Your task to perform on an android device: Open Chrome and go to the settings page Image 0: 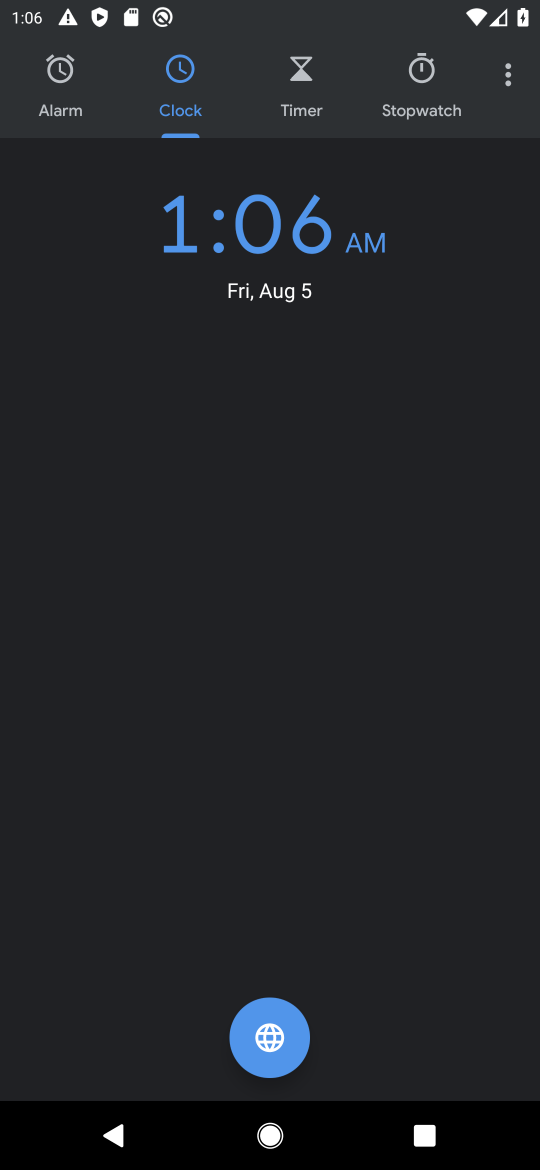
Step 0: press back button
Your task to perform on an android device: Open Chrome and go to the settings page Image 1: 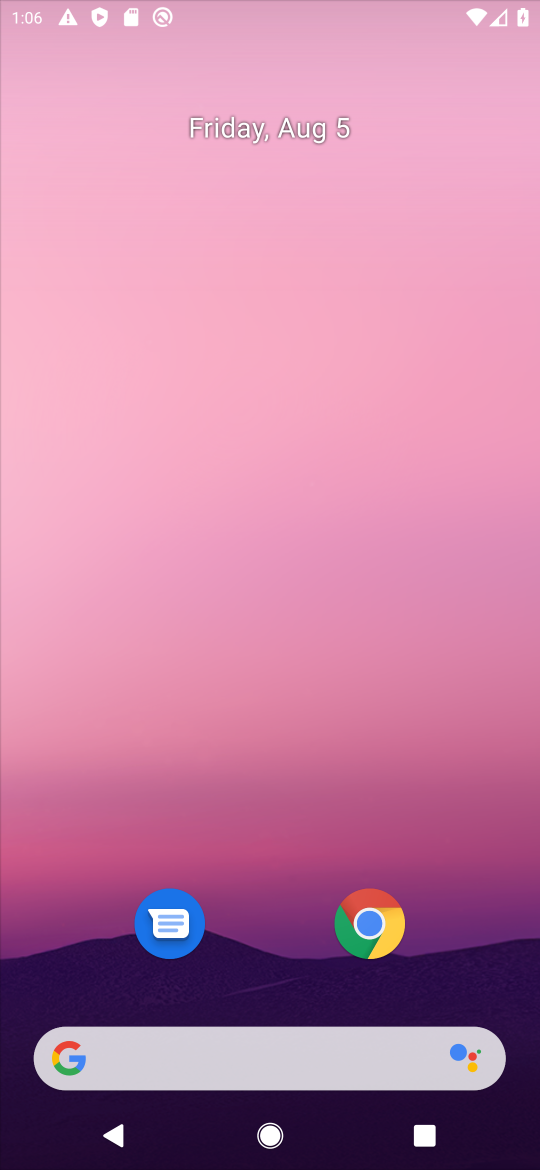
Step 1: press home button
Your task to perform on an android device: Open Chrome and go to the settings page Image 2: 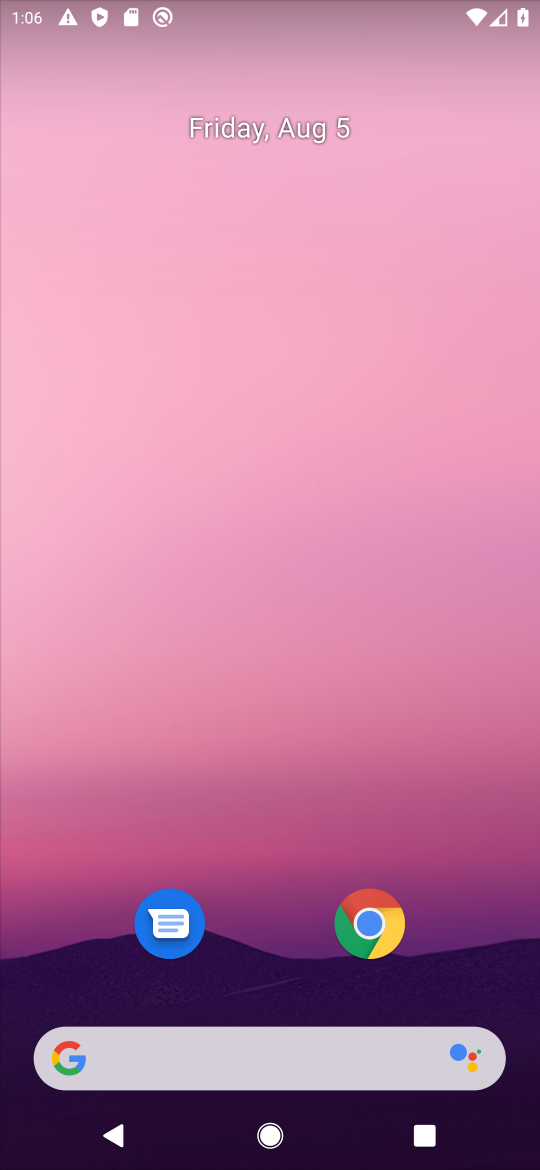
Step 2: drag from (311, 997) to (108, 13)
Your task to perform on an android device: Open Chrome and go to the settings page Image 3: 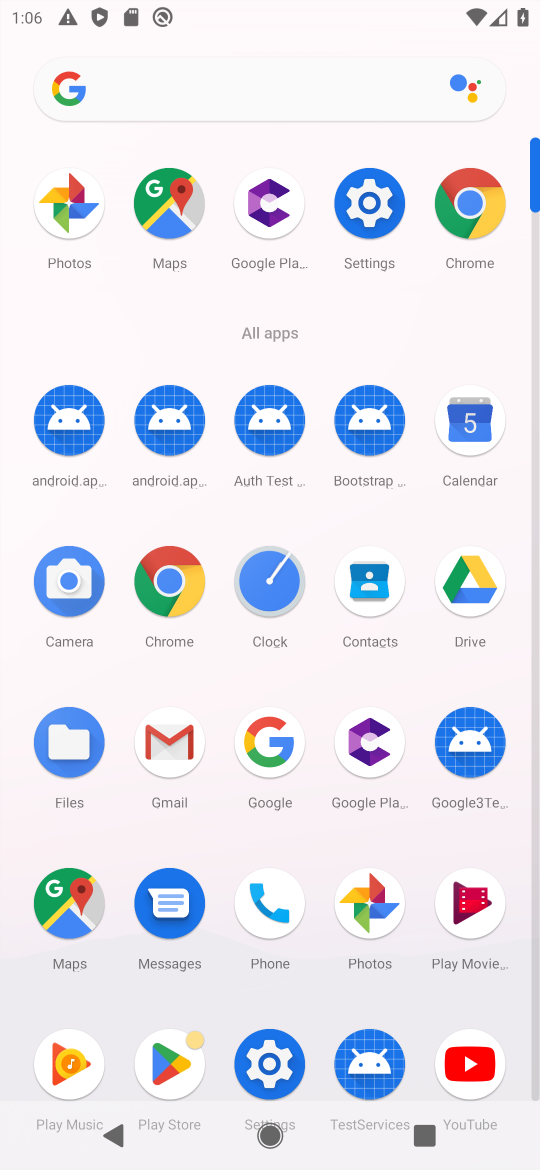
Step 3: click (187, 577)
Your task to perform on an android device: Open Chrome and go to the settings page Image 4: 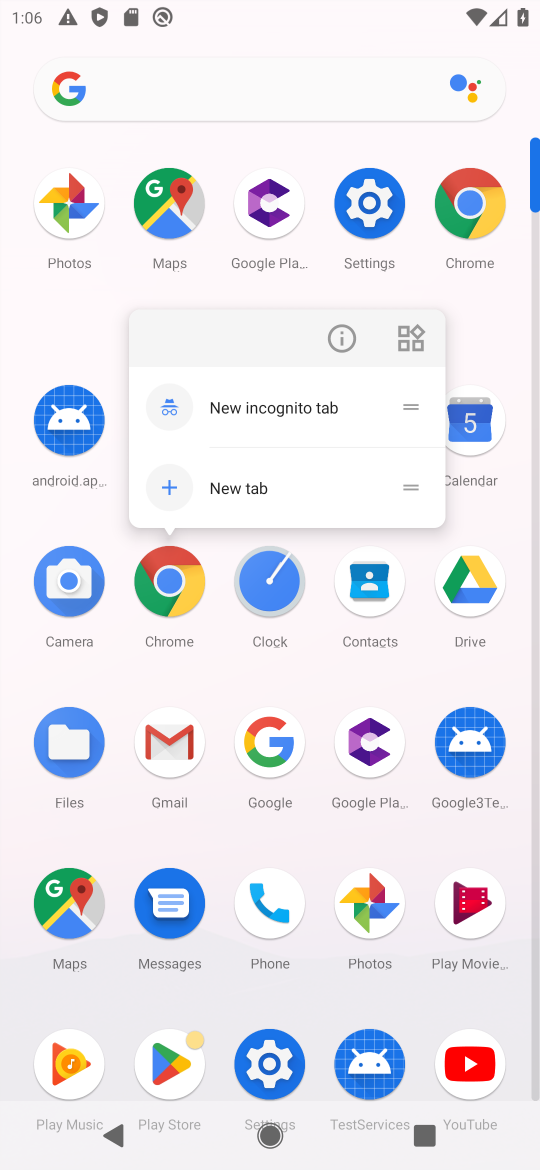
Step 4: click (181, 589)
Your task to perform on an android device: Open Chrome and go to the settings page Image 5: 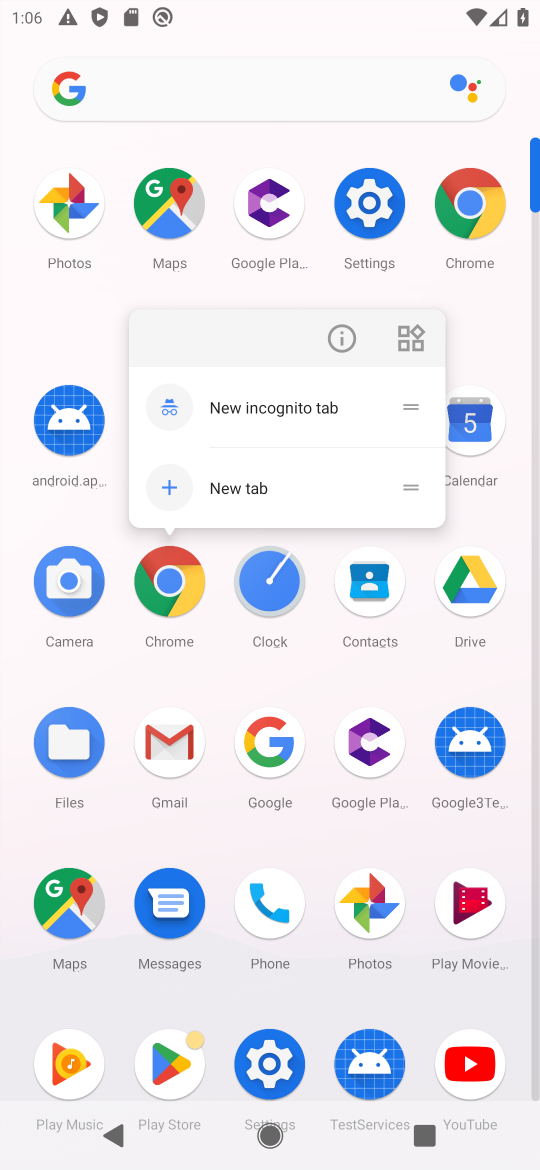
Step 5: click (180, 590)
Your task to perform on an android device: Open Chrome and go to the settings page Image 6: 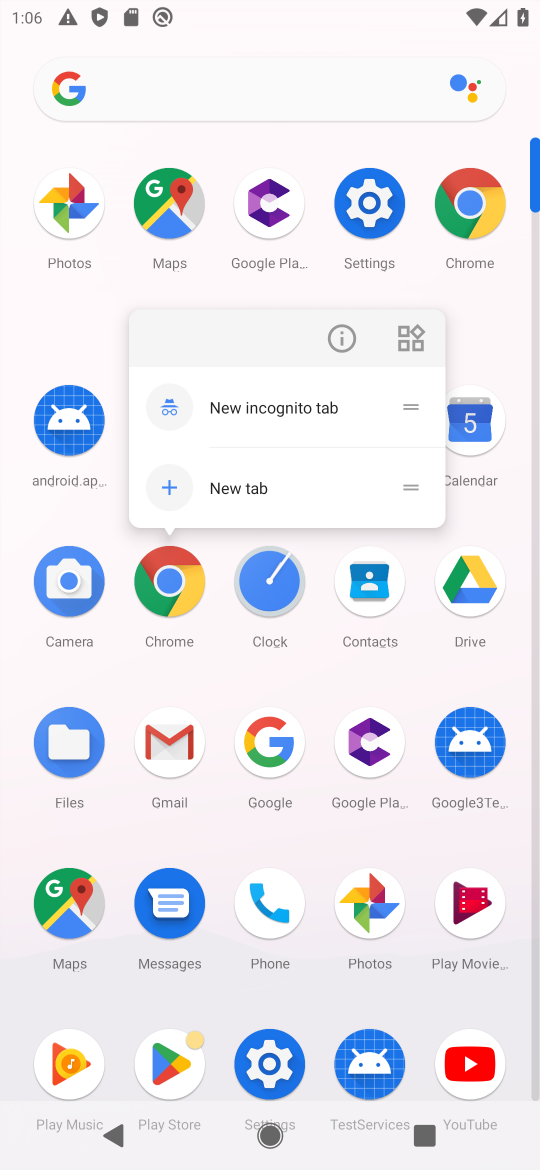
Step 6: click (191, 570)
Your task to perform on an android device: Open Chrome and go to the settings page Image 7: 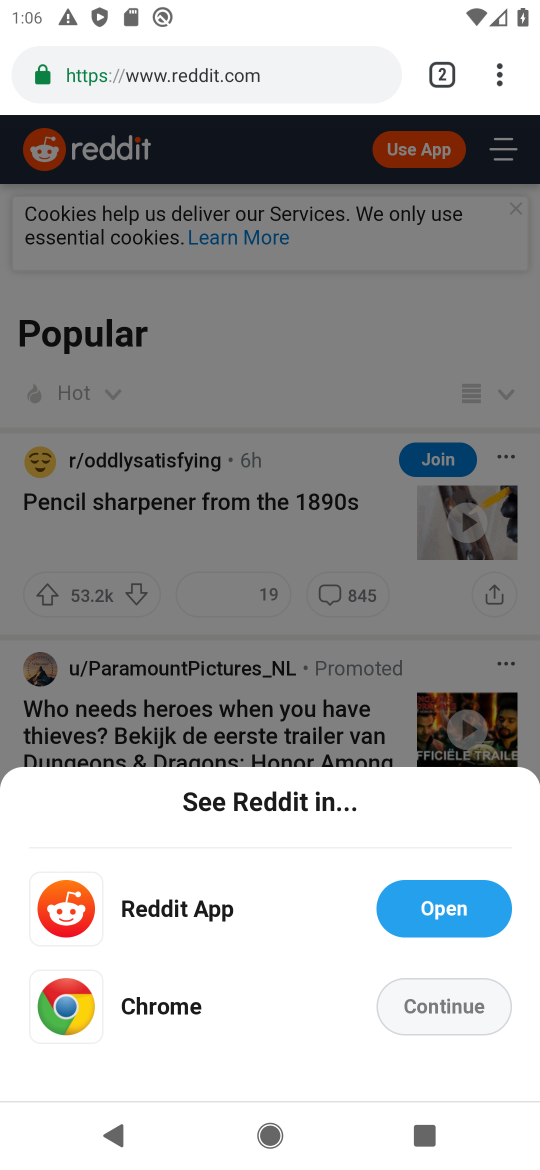
Step 7: task complete